Your task to perform on an android device: Open sound settings Image 0: 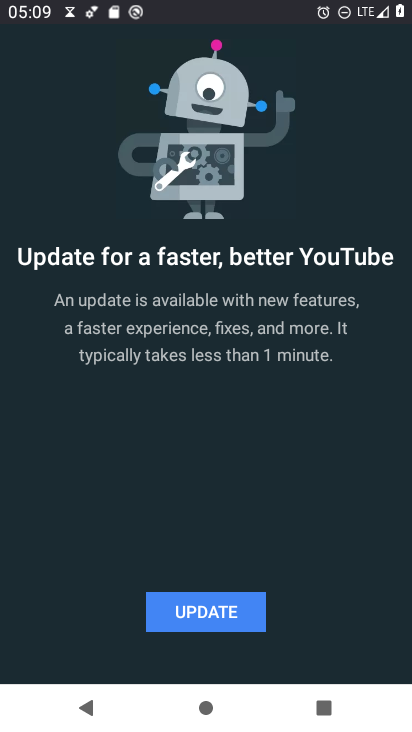
Step 0: press back button
Your task to perform on an android device: Open sound settings Image 1: 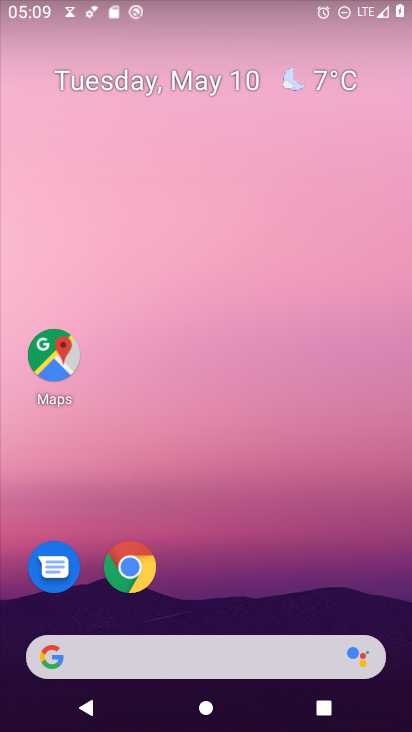
Step 1: drag from (224, 501) to (149, 114)
Your task to perform on an android device: Open sound settings Image 2: 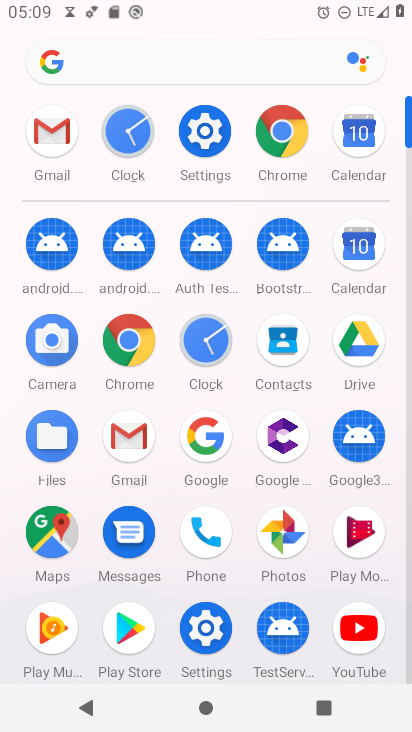
Step 2: click (203, 130)
Your task to perform on an android device: Open sound settings Image 3: 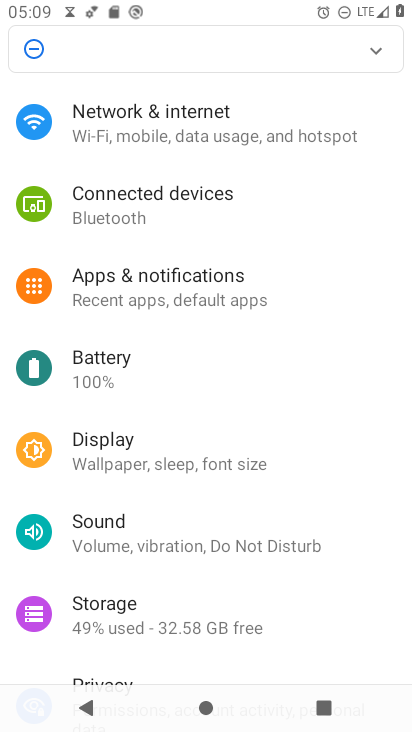
Step 3: click (137, 536)
Your task to perform on an android device: Open sound settings Image 4: 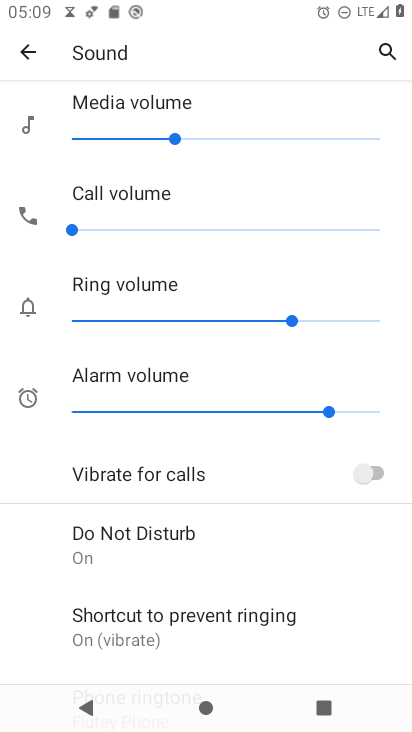
Step 4: task complete